Your task to perform on an android device: Go to Android settings Image 0: 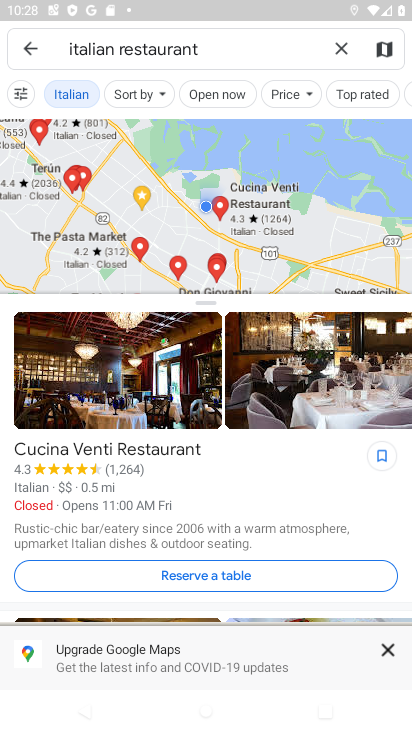
Step 0: press back button
Your task to perform on an android device: Go to Android settings Image 1: 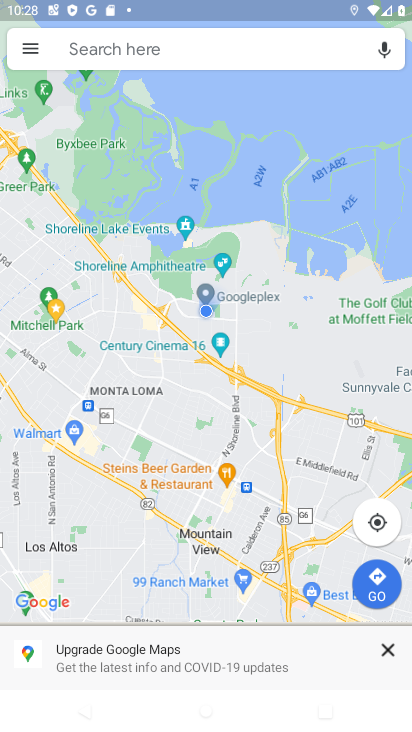
Step 1: press back button
Your task to perform on an android device: Go to Android settings Image 2: 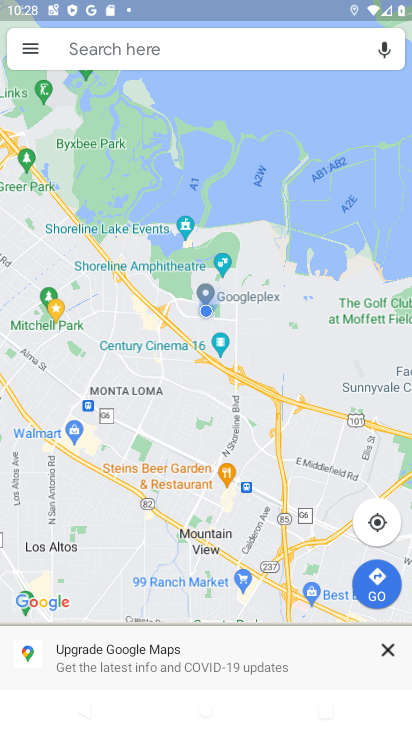
Step 2: press back button
Your task to perform on an android device: Go to Android settings Image 3: 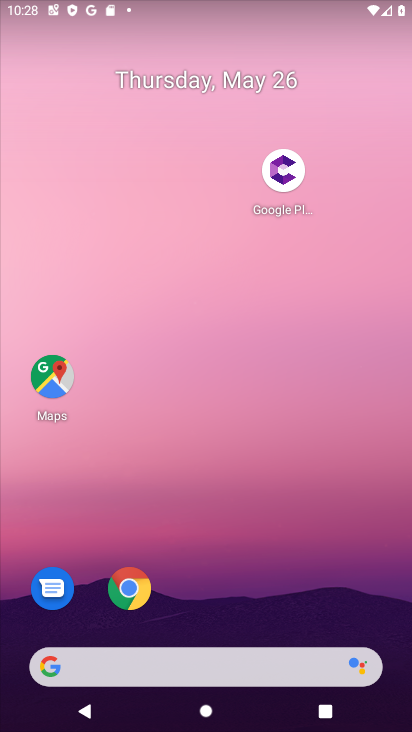
Step 3: press back button
Your task to perform on an android device: Go to Android settings Image 4: 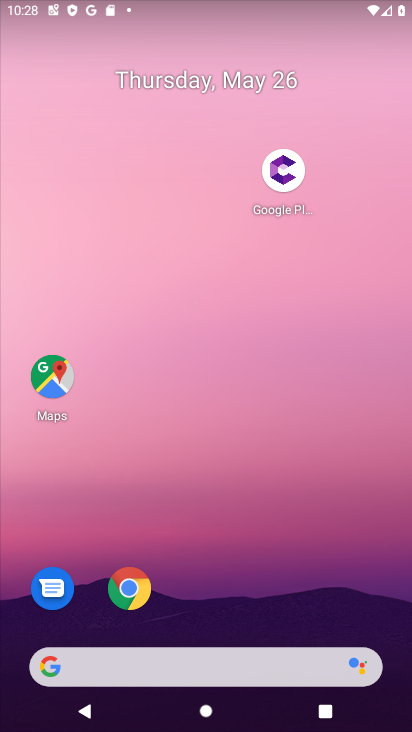
Step 4: drag from (275, 708) to (60, 55)
Your task to perform on an android device: Go to Android settings Image 5: 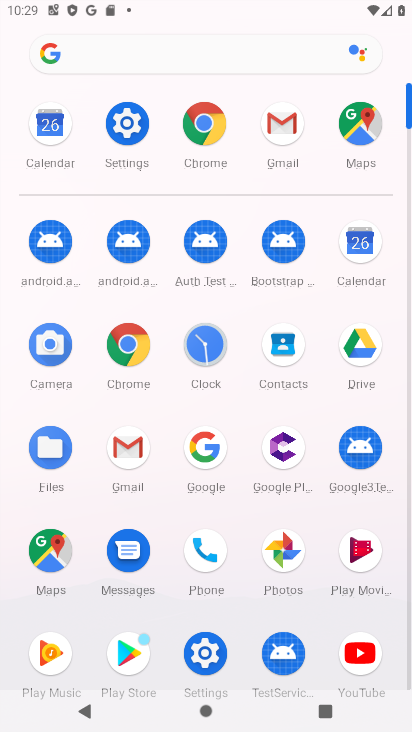
Step 5: click (128, 116)
Your task to perform on an android device: Go to Android settings Image 6: 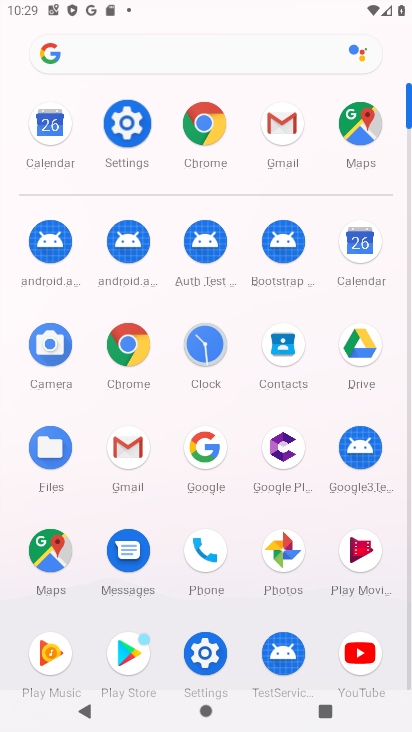
Step 6: click (128, 116)
Your task to perform on an android device: Go to Android settings Image 7: 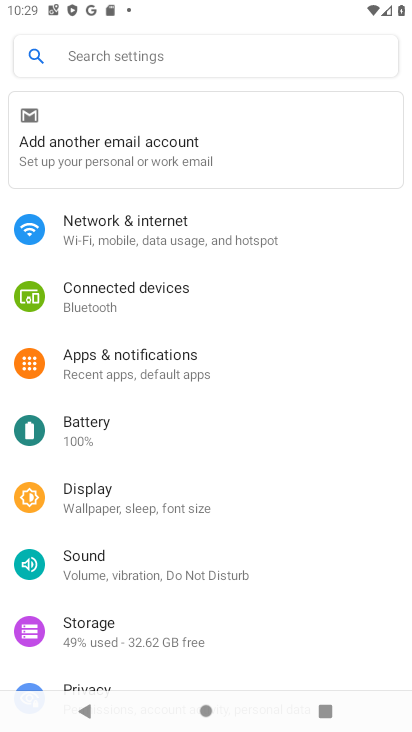
Step 7: drag from (136, 479) to (130, 137)
Your task to perform on an android device: Go to Android settings Image 8: 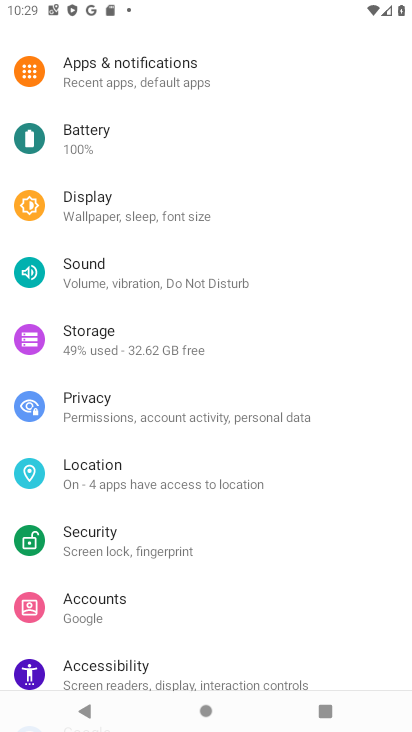
Step 8: drag from (125, 468) to (118, 208)
Your task to perform on an android device: Go to Android settings Image 9: 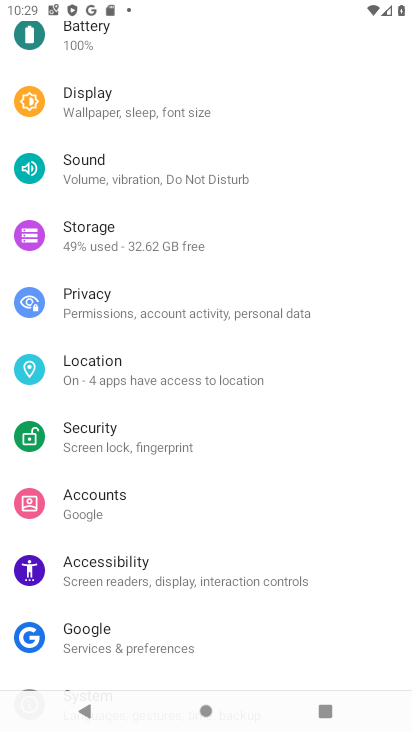
Step 9: drag from (156, 517) to (151, 221)
Your task to perform on an android device: Go to Android settings Image 10: 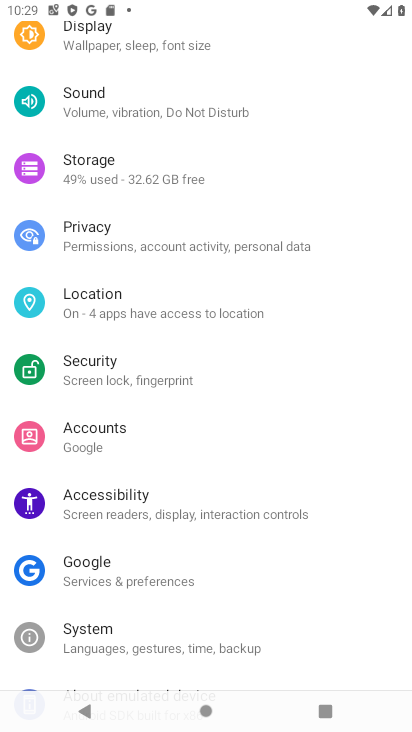
Step 10: drag from (199, 539) to (196, 161)
Your task to perform on an android device: Go to Android settings Image 11: 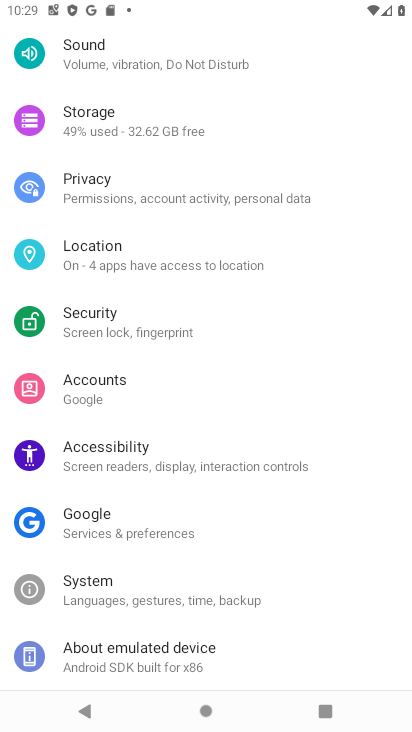
Step 11: click (99, 649)
Your task to perform on an android device: Go to Android settings Image 12: 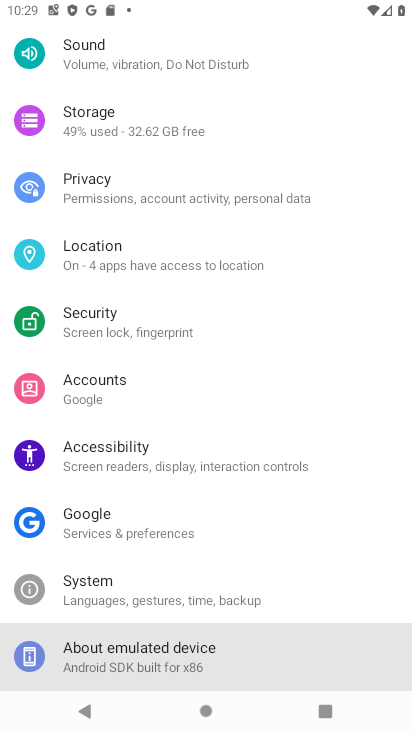
Step 12: click (99, 649)
Your task to perform on an android device: Go to Android settings Image 13: 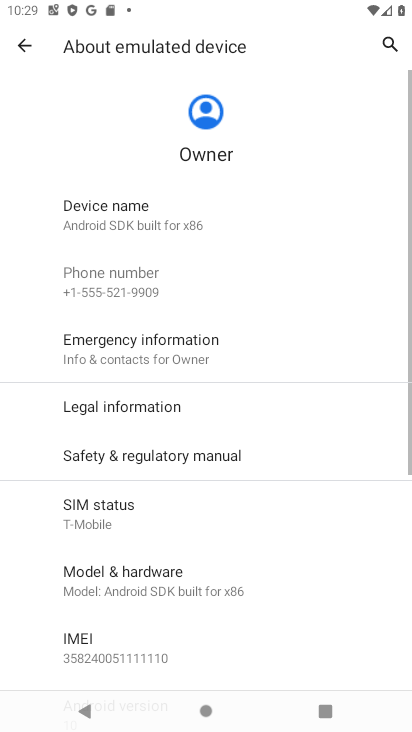
Step 13: click (99, 649)
Your task to perform on an android device: Go to Android settings Image 14: 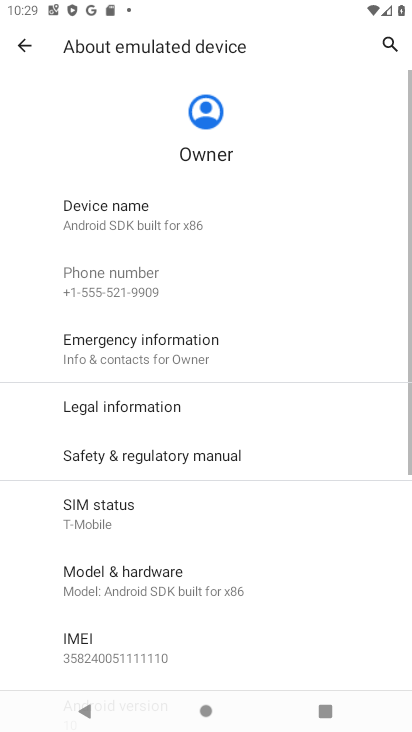
Step 14: click (97, 645)
Your task to perform on an android device: Go to Android settings Image 15: 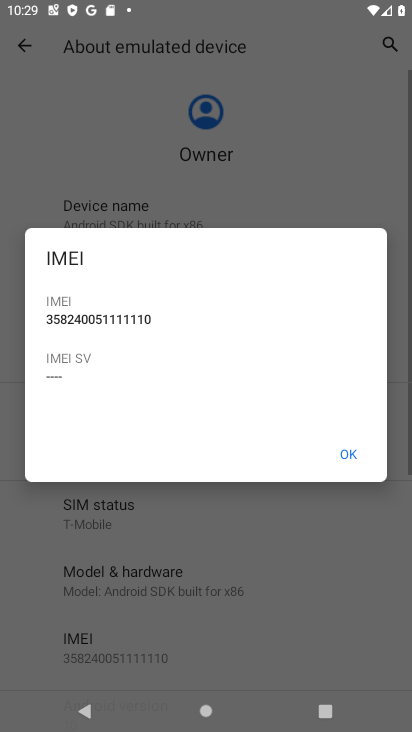
Step 15: click (95, 640)
Your task to perform on an android device: Go to Android settings Image 16: 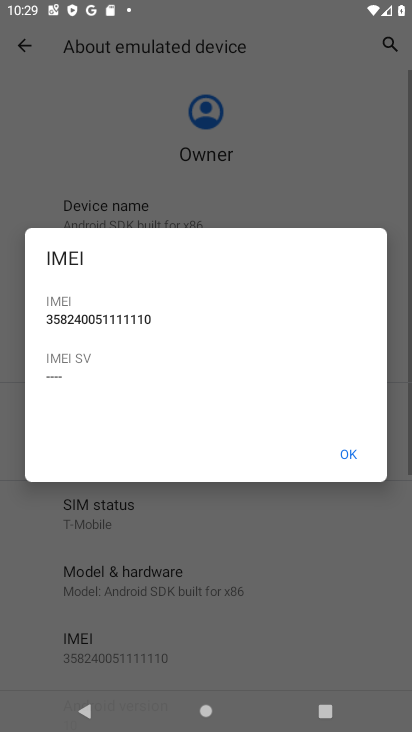
Step 16: click (99, 639)
Your task to perform on an android device: Go to Android settings Image 17: 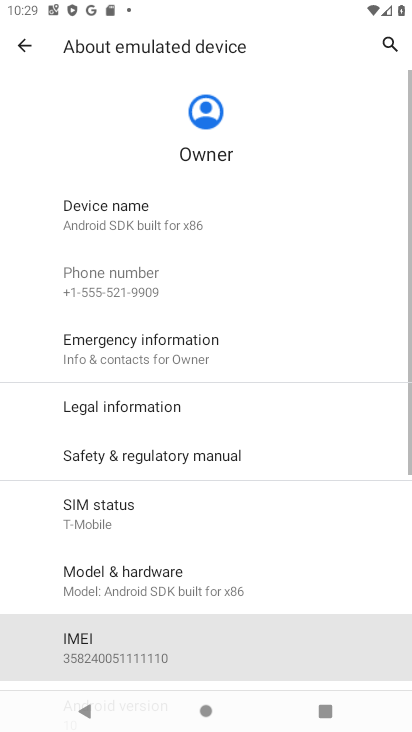
Step 17: click (100, 638)
Your task to perform on an android device: Go to Android settings Image 18: 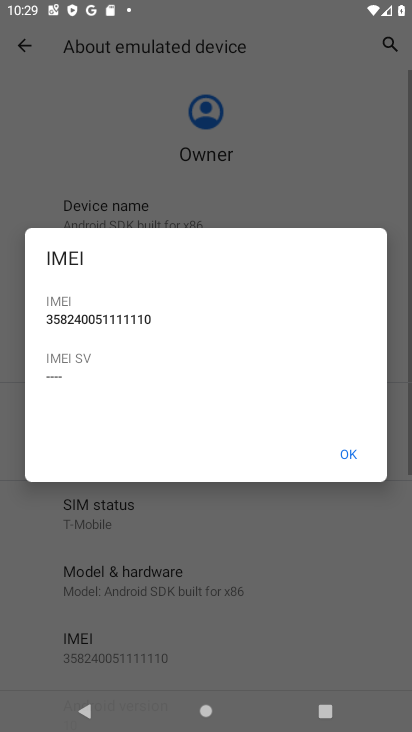
Step 18: click (335, 443)
Your task to perform on an android device: Go to Android settings Image 19: 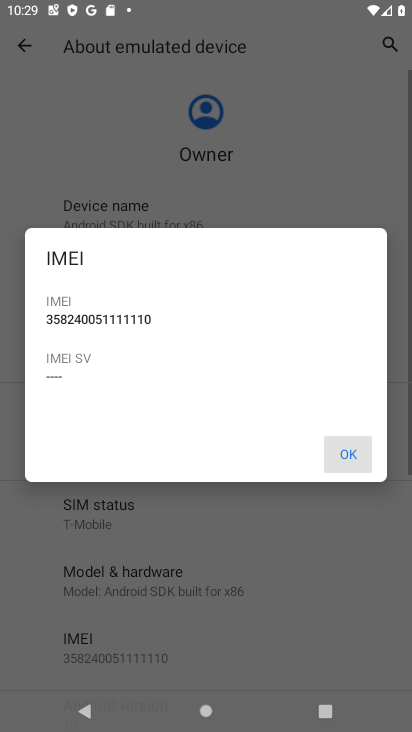
Step 19: click (338, 446)
Your task to perform on an android device: Go to Android settings Image 20: 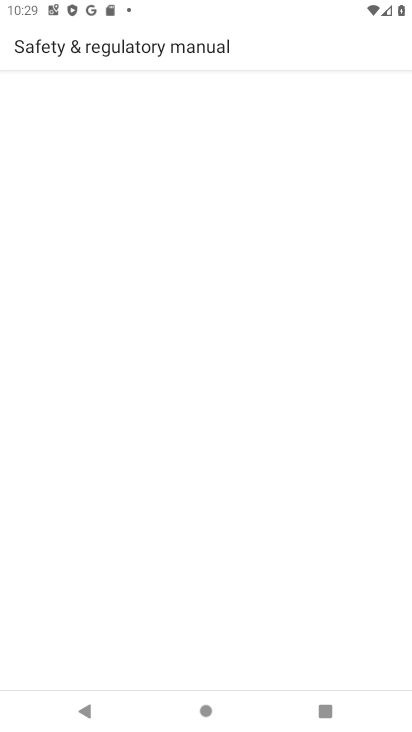
Step 20: task complete